Your task to perform on an android device: What's on my calendar tomorrow? Image 0: 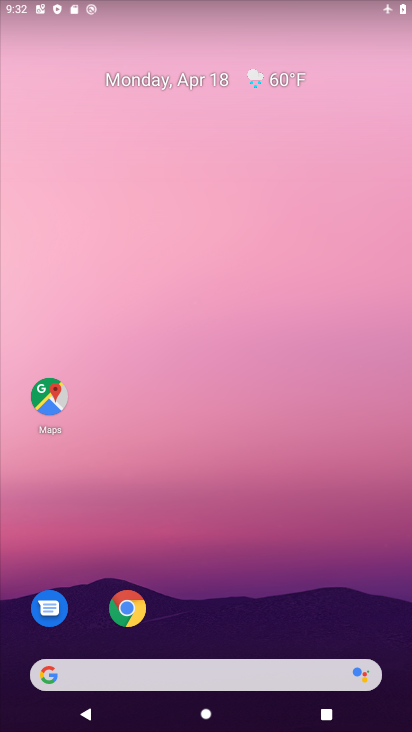
Step 0: drag from (206, 595) to (226, 198)
Your task to perform on an android device: What's on my calendar tomorrow? Image 1: 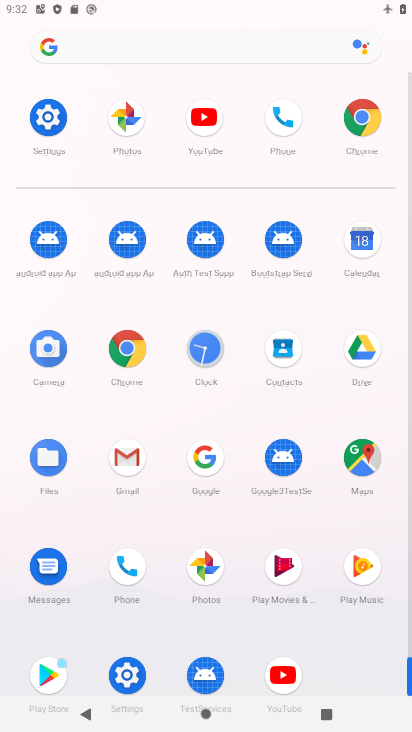
Step 1: click (360, 245)
Your task to perform on an android device: What's on my calendar tomorrow? Image 2: 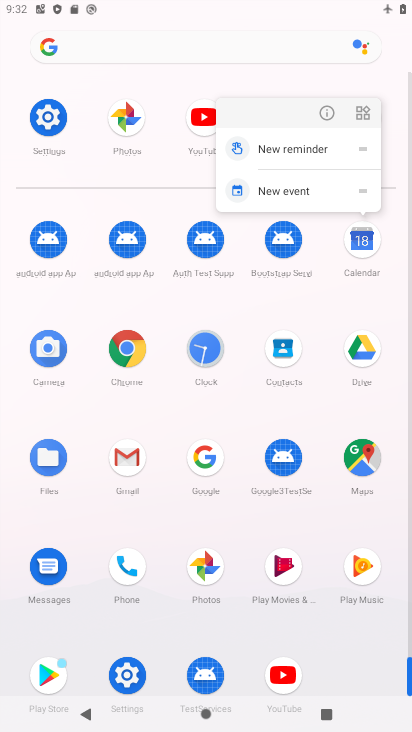
Step 2: click (330, 103)
Your task to perform on an android device: What's on my calendar tomorrow? Image 3: 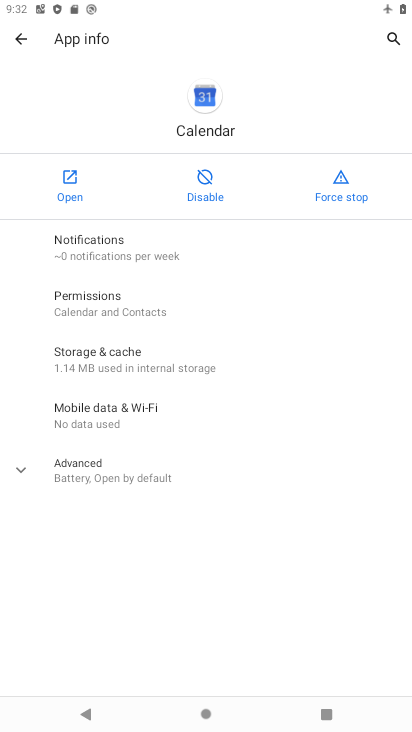
Step 3: click (71, 184)
Your task to perform on an android device: What's on my calendar tomorrow? Image 4: 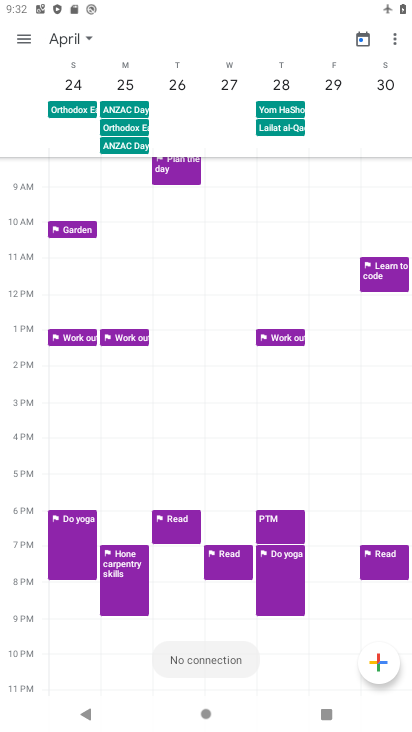
Step 4: drag from (192, 184) to (253, 476)
Your task to perform on an android device: What's on my calendar tomorrow? Image 5: 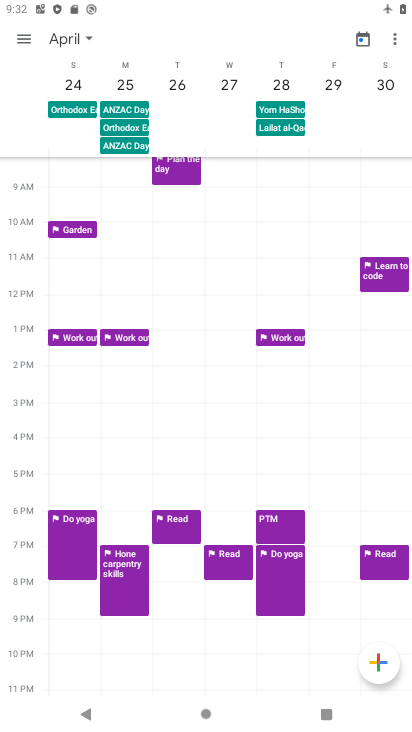
Step 5: drag from (332, 286) to (15, 241)
Your task to perform on an android device: What's on my calendar tomorrow? Image 6: 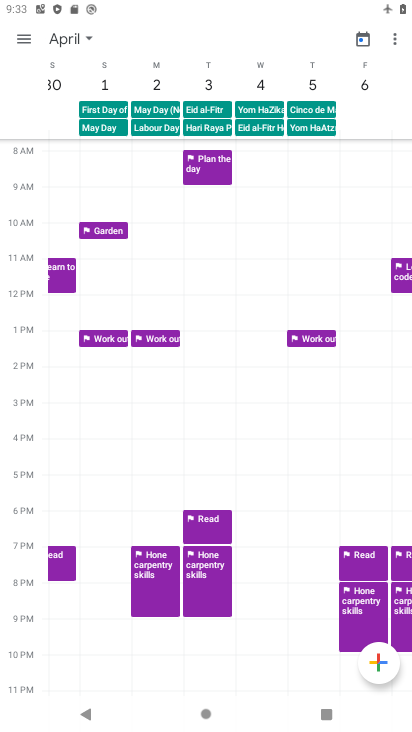
Step 6: drag from (106, 241) to (369, 281)
Your task to perform on an android device: What's on my calendar tomorrow? Image 7: 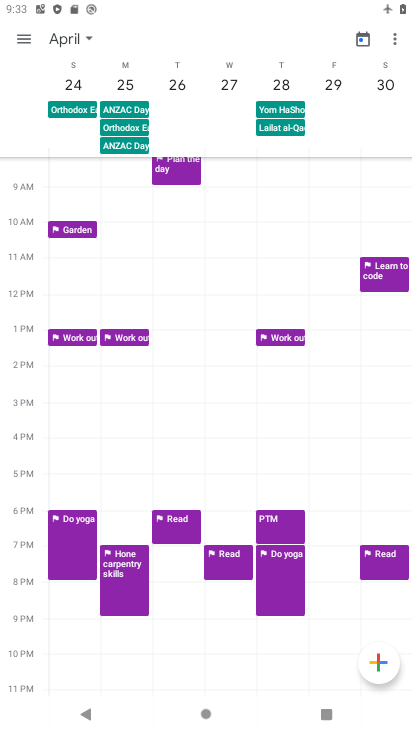
Step 7: drag from (111, 203) to (401, 204)
Your task to perform on an android device: What's on my calendar tomorrow? Image 8: 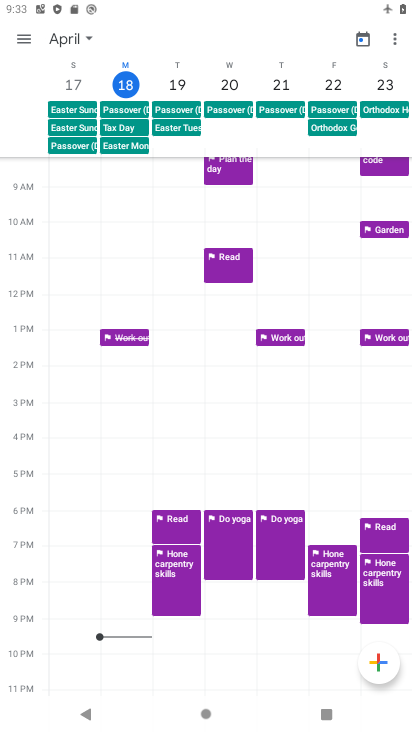
Step 8: click (179, 90)
Your task to perform on an android device: What's on my calendar tomorrow? Image 9: 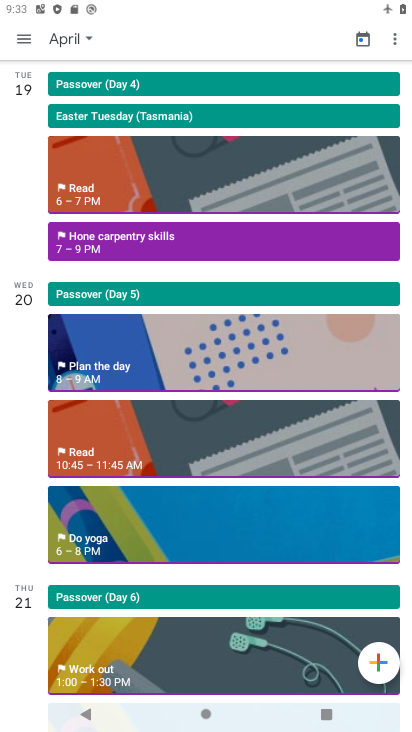
Step 9: task complete